Your task to perform on an android device: What's the latest video from GameSpot News? Image 0: 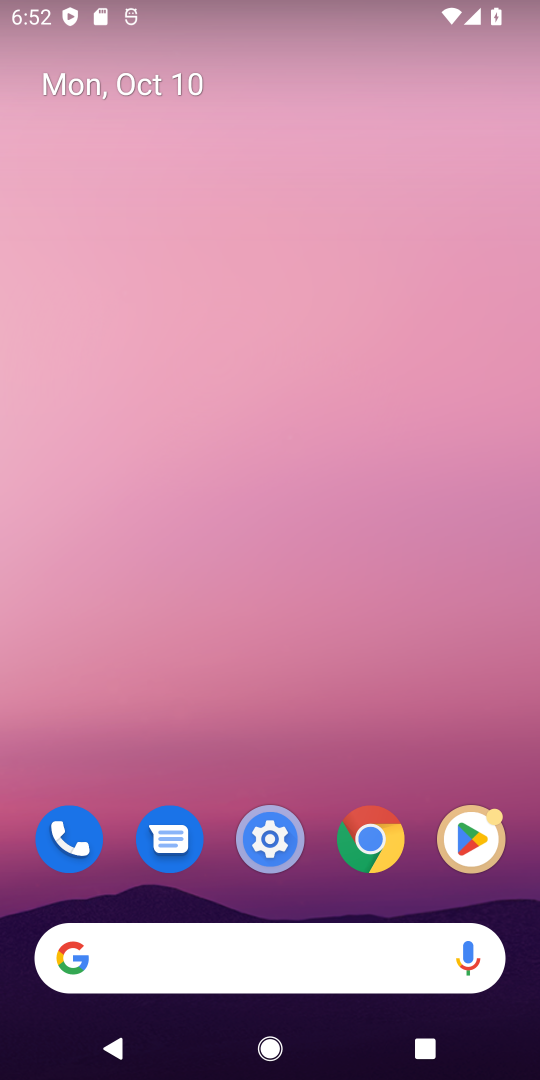
Step 0: click (315, 954)
Your task to perform on an android device: What's the latest video from GameSpot News? Image 1: 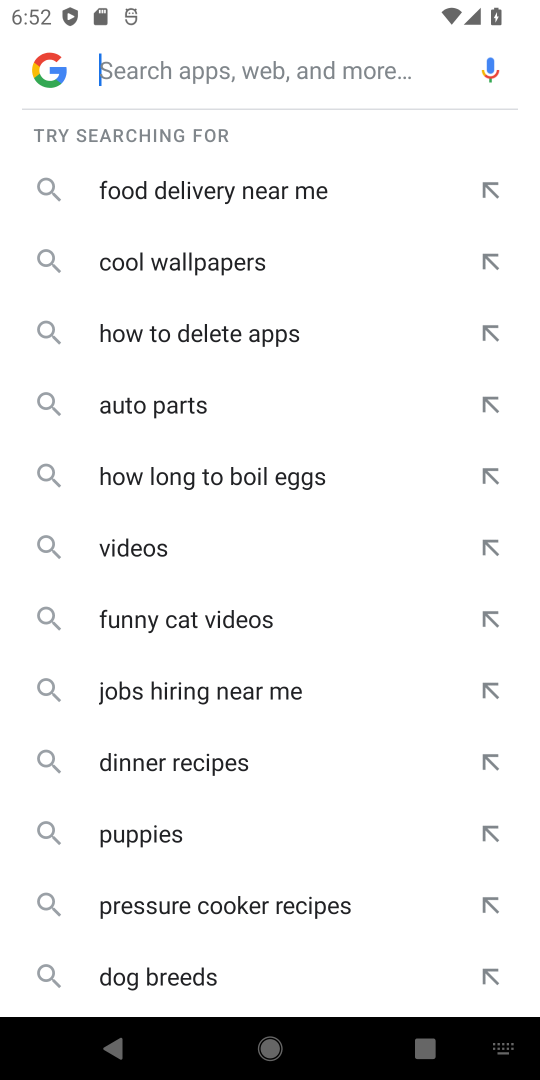
Step 1: type "What's the latest video from GameSpot News?"
Your task to perform on an android device: What's the latest video from GameSpot News? Image 2: 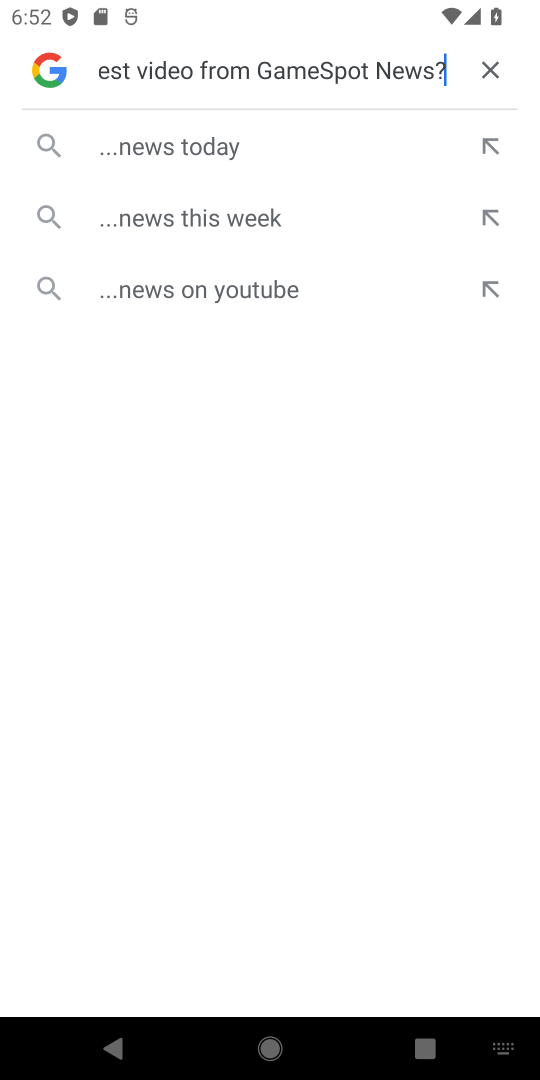
Step 2: click (157, 162)
Your task to perform on an android device: What's the latest video from GameSpot News? Image 3: 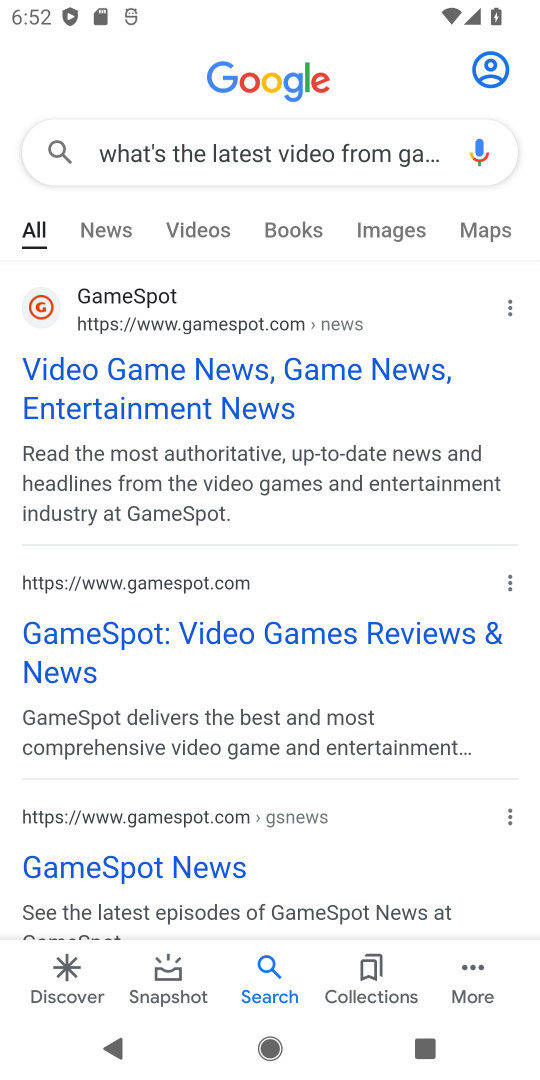
Step 3: click (175, 382)
Your task to perform on an android device: What's the latest video from GameSpot News? Image 4: 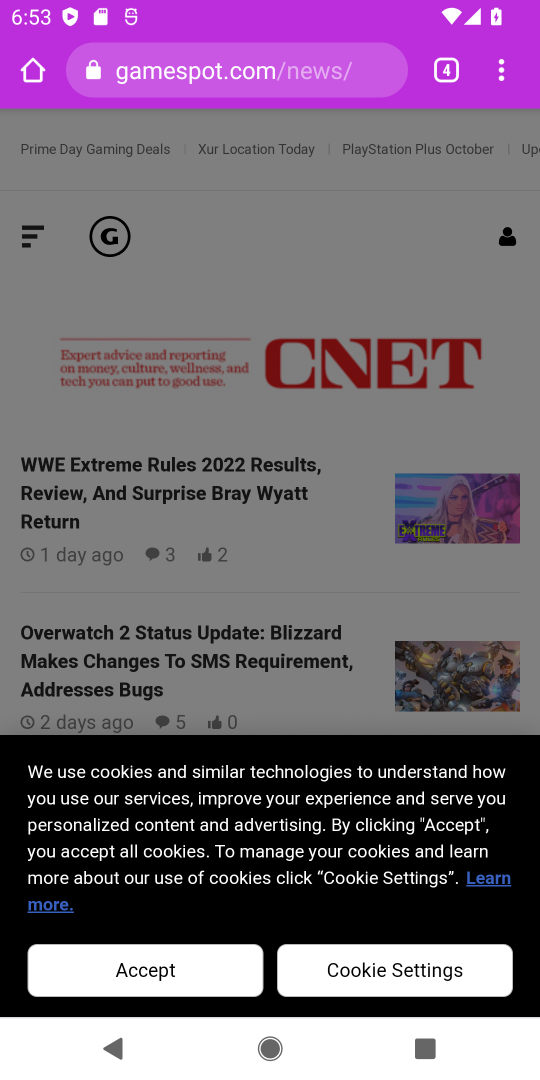
Step 4: click (184, 976)
Your task to perform on an android device: What's the latest video from GameSpot News? Image 5: 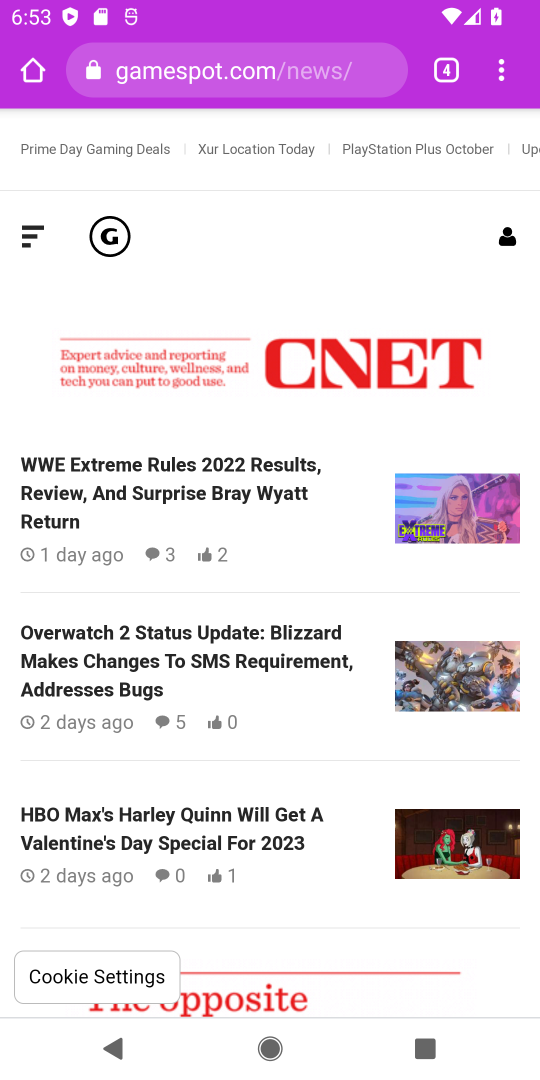
Step 5: task complete